Your task to perform on an android device: Open calendar and show me the first week of next month Image 0: 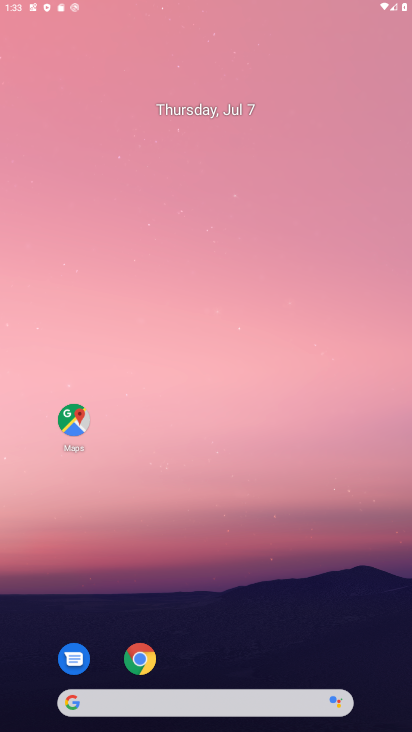
Step 0: press home button
Your task to perform on an android device: Open calendar and show me the first week of next month Image 1: 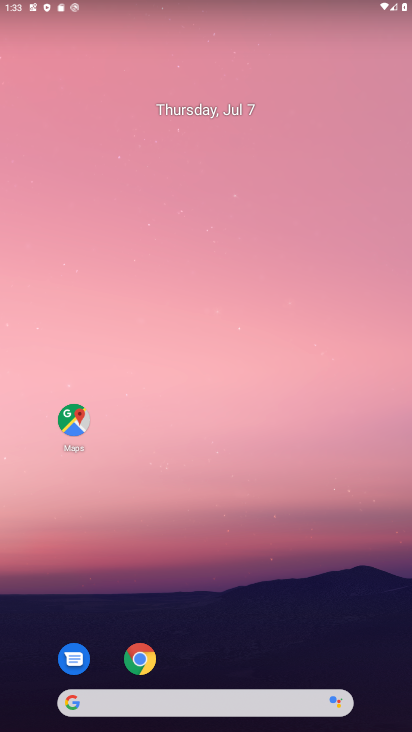
Step 1: drag from (208, 662) to (250, 0)
Your task to perform on an android device: Open calendar and show me the first week of next month Image 2: 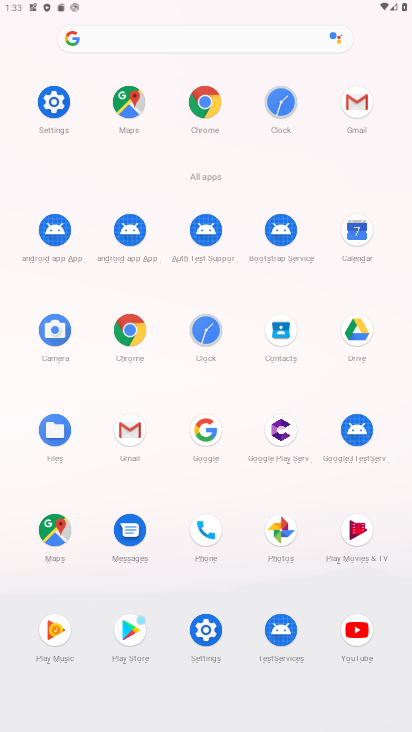
Step 2: click (355, 229)
Your task to perform on an android device: Open calendar and show me the first week of next month Image 3: 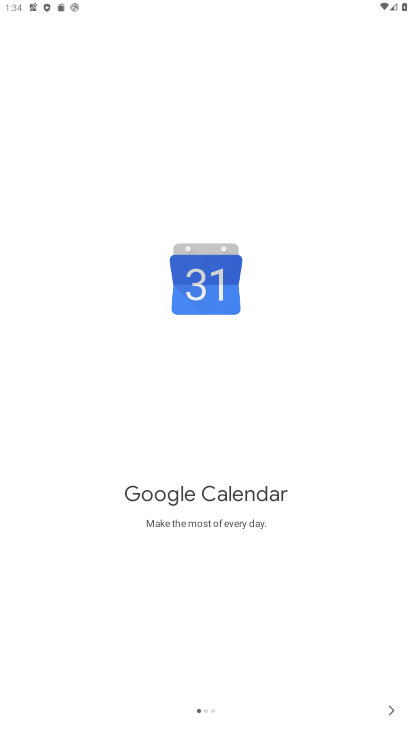
Step 3: click (388, 708)
Your task to perform on an android device: Open calendar and show me the first week of next month Image 4: 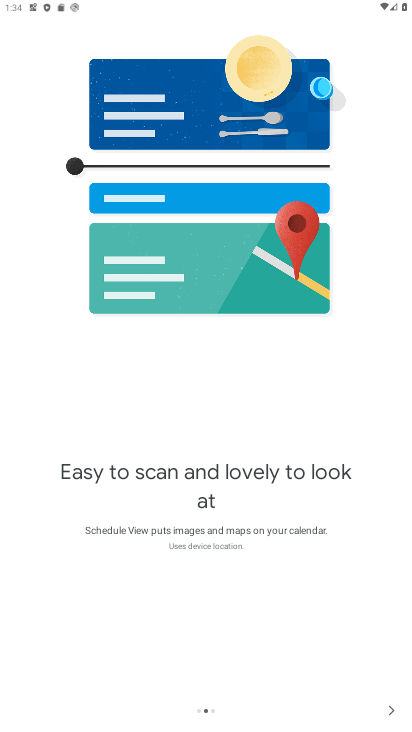
Step 4: click (385, 702)
Your task to perform on an android device: Open calendar and show me the first week of next month Image 5: 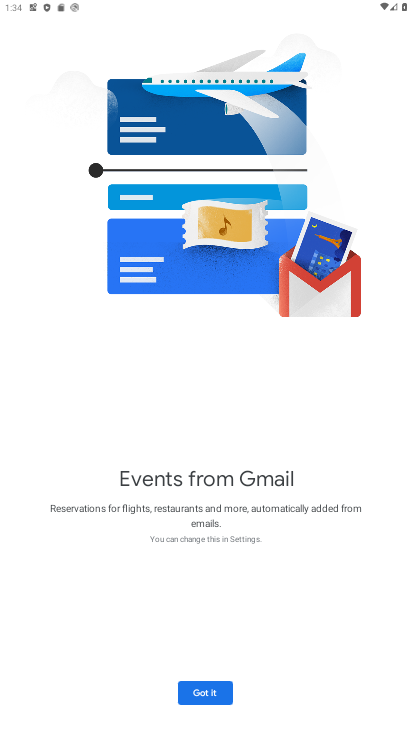
Step 5: click (201, 687)
Your task to perform on an android device: Open calendar and show me the first week of next month Image 6: 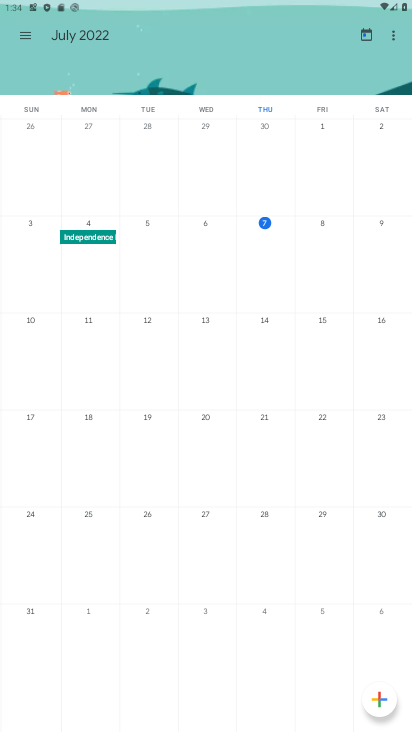
Step 6: drag from (392, 365) to (143, 352)
Your task to perform on an android device: Open calendar and show me the first week of next month Image 7: 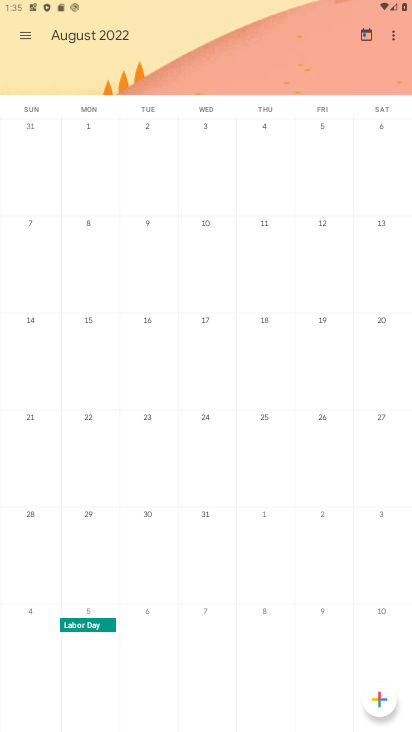
Step 7: click (88, 137)
Your task to perform on an android device: Open calendar and show me the first week of next month Image 8: 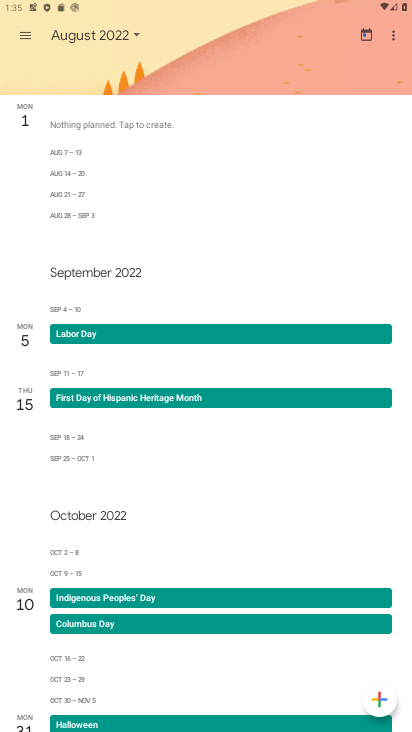
Step 8: task complete